Your task to perform on an android device: refresh tabs in the chrome app Image 0: 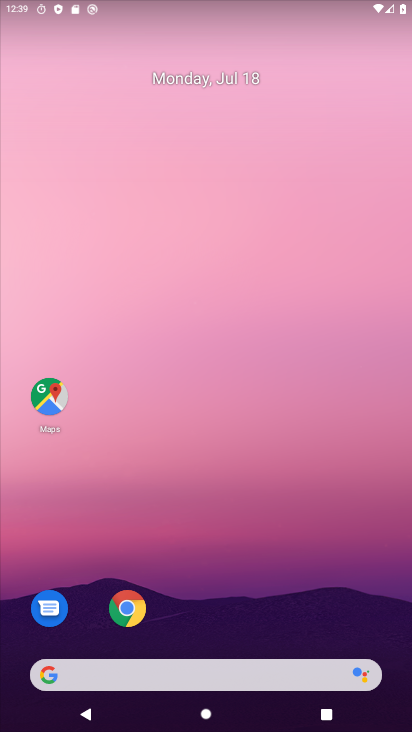
Step 0: drag from (271, 629) to (384, 103)
Your task to perform on an android device: refresh tabs in the chrome app Image 1: 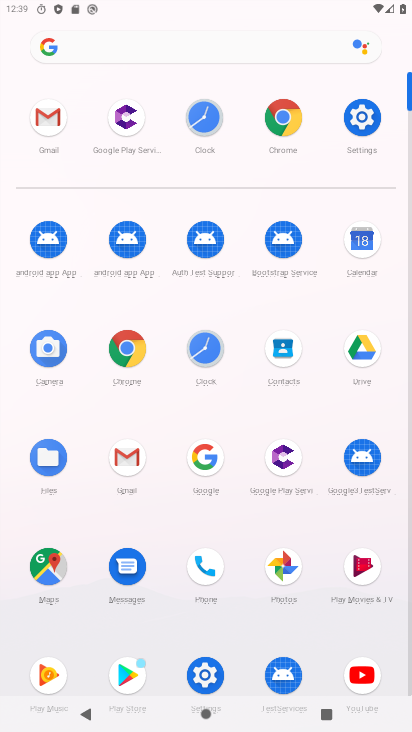
Step 1: click (286, 117)
Your task to perform on an android device: refresh tabs in the chrome app Image 2: 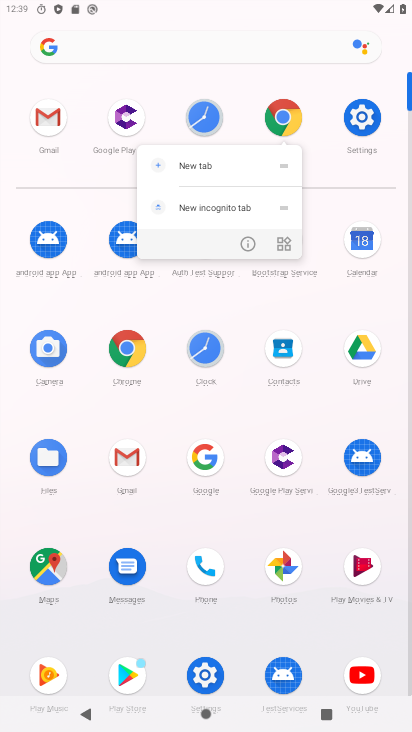
Step 2: click (286, 117)
Your task to perform on an android device: refresh tabs in the chrome app Image 3: 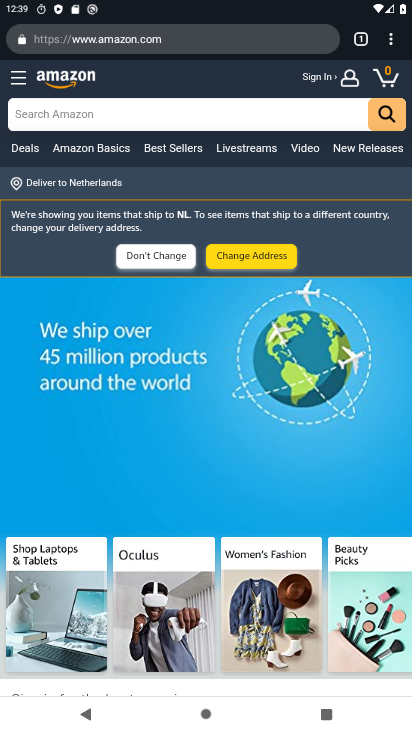
Step 3: click (383, 48)
Your task to perform on an android device: refresh tabs in the chrome app Image 4: 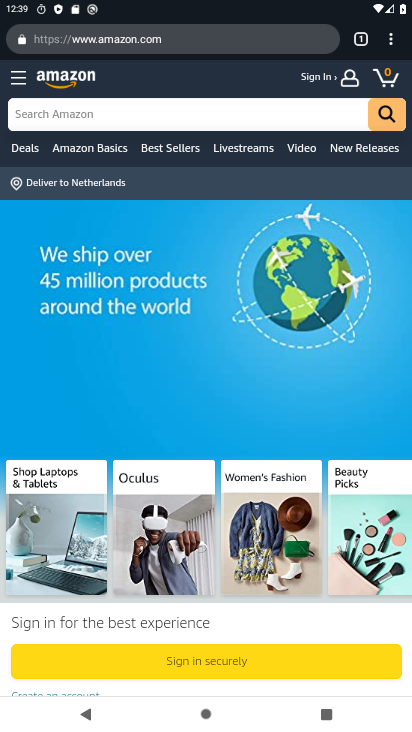
Step 4: task complete